Your task to perform on an android device: Go to Android settings Image 0: 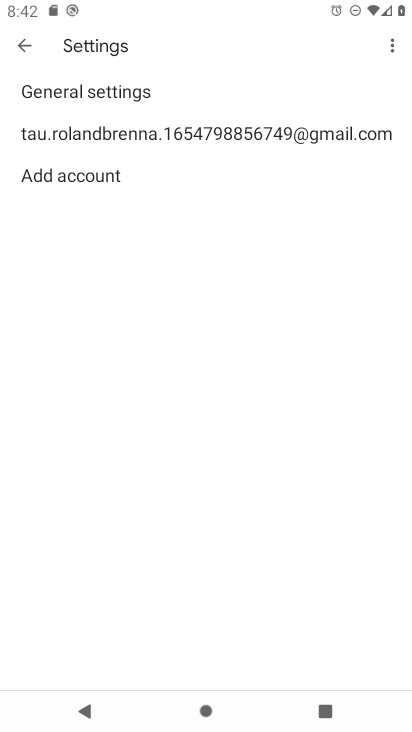
Step 0: press home button
Your task to perform on an android device: Go to Android settings Image 1: 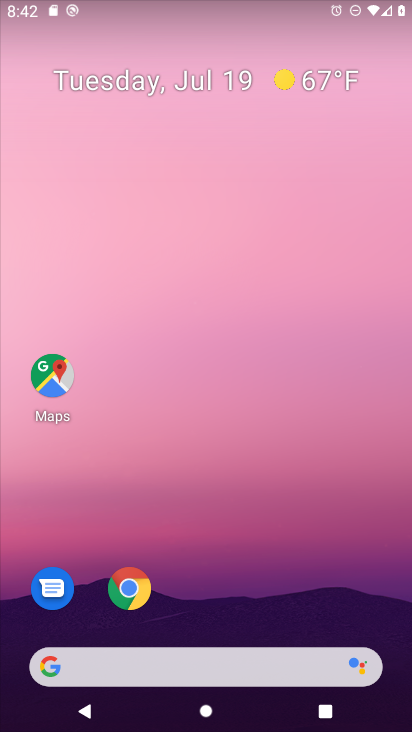
Step 1: drag from (340, 608) to (366, 114)
Your task to perform on an android device: Go to Android settings Image 2: 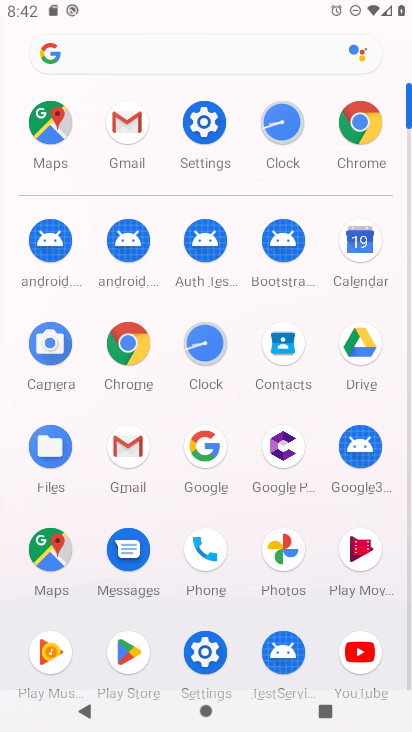
Step 2: click (215, 128)
Your task to perform on an android device: Go to Android settings Image 3: 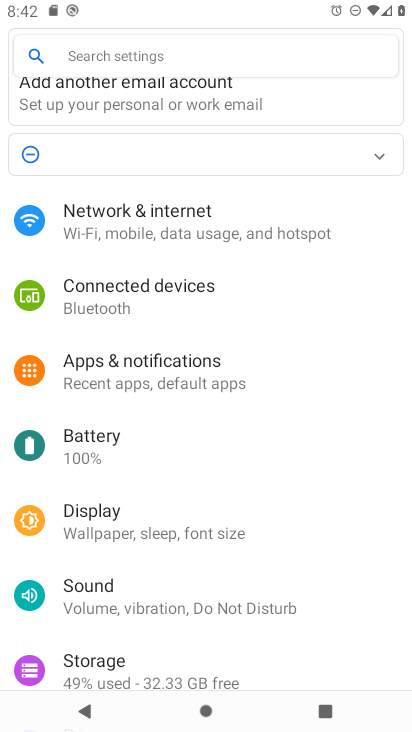
Step 3: drag from (317, 440) to (329, 371)
Your task to perform on an android device: Go to Android settings Image 4: 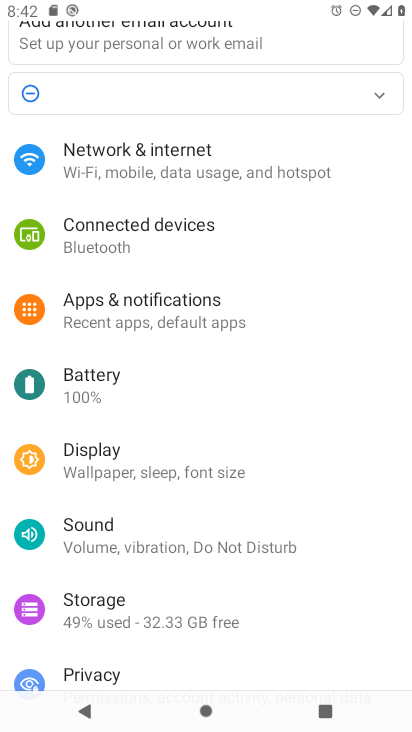
Step 4: drag from (350, 512) to (373, 446)
Your task to perform on an android device: Go to Android settings Image 5: 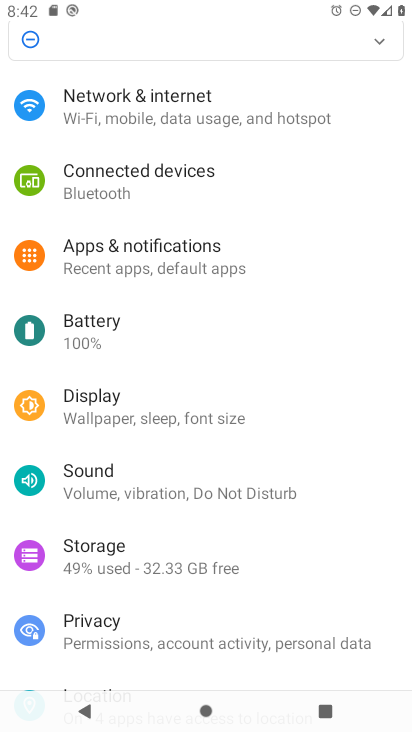
Step 5: drag from (340, 558) to (340, 479)
Your task to perform on an android device: Go to Android settings Image 6: 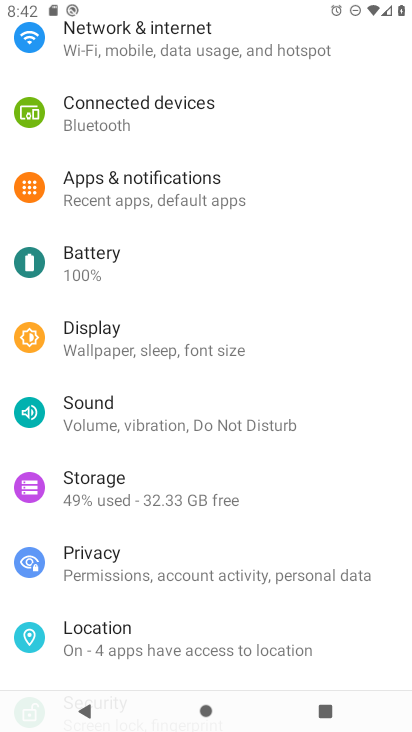
Step 6: drag from (330, 605) to (342, 494)
Your task to perform on an android device: Go to Android settings Image 7: 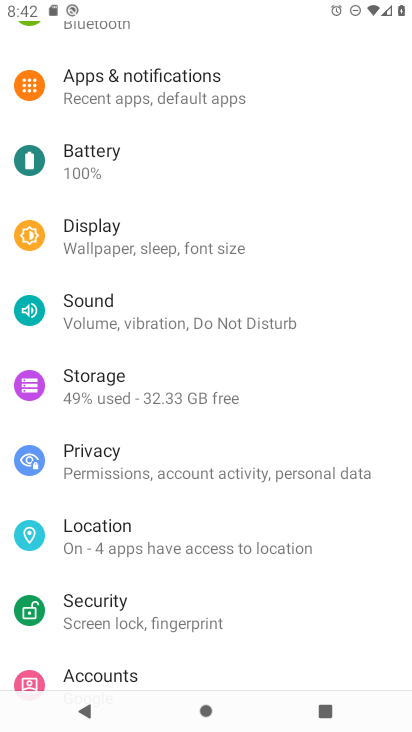
Step 7: drag from (344, 565) to (353, 500)
Your task to perform on an android device: Go to Android settings Image 8: 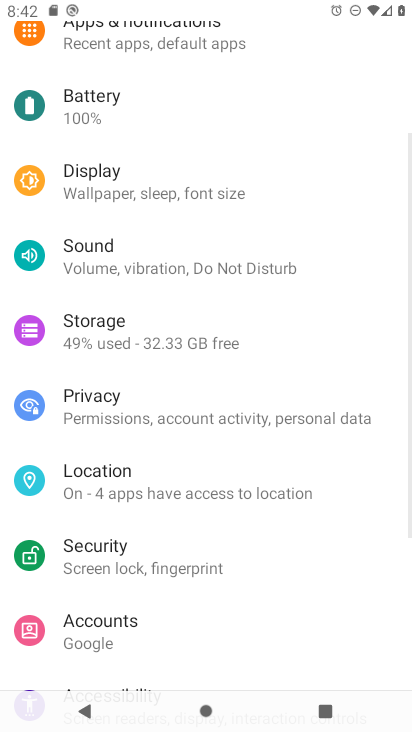
Step 8: drag from (348, 574) to (347, 478)
Your task to perform on an android device: Go to Android settings Image 9: 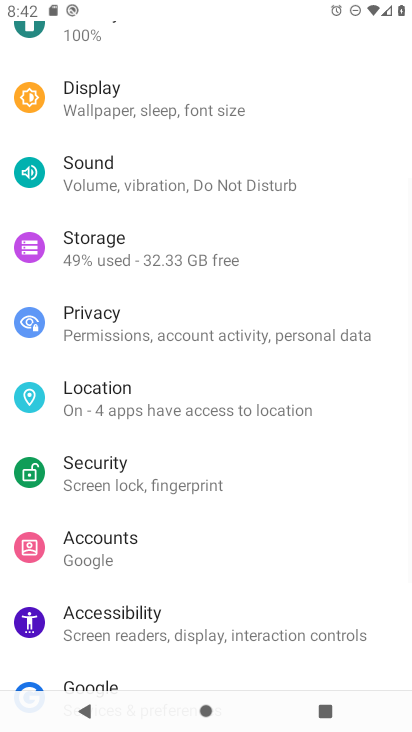
Step 9: drag from (348, 552) to (354, 395)
Your task to perform on an android device: Go to Android settings Image 10: 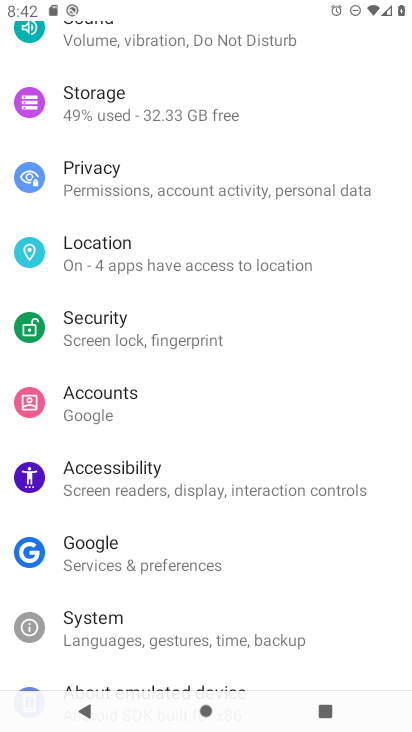
Step 10: drag from (351, 567) to (357, 433)
Your task to perform on an android device: Go to Android settings Image 11: 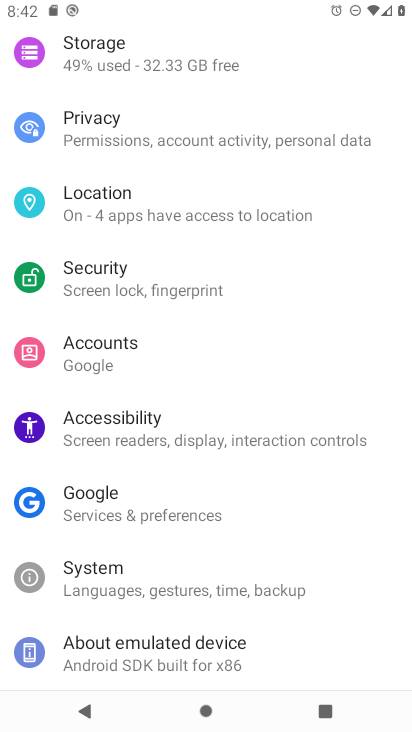
Step 11: click (315, 595)
Your task to perform on an android device: Go to Android settings Image 12: 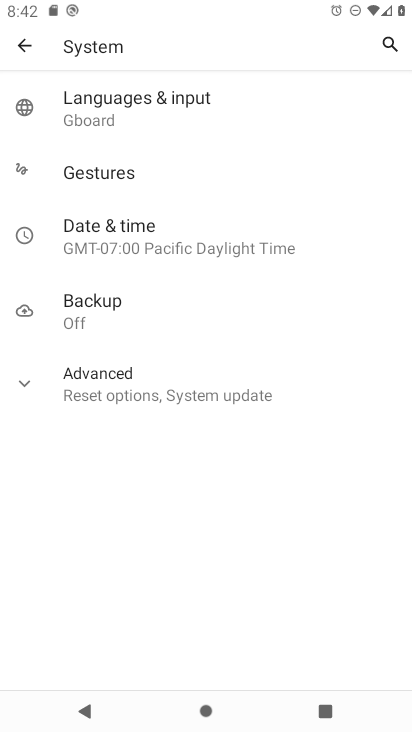
Step 12: click (231, 402)
Your task to perform on an android device: Go to Android settings Image 13: 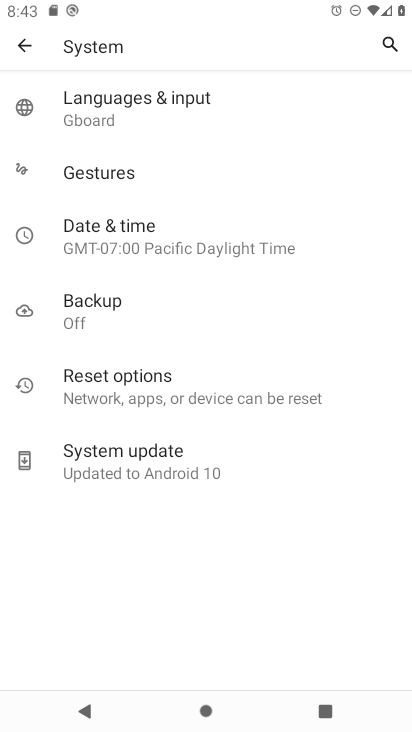
Step 13: task complete